Your task to perform on an android device: Go to network settings Image 0: 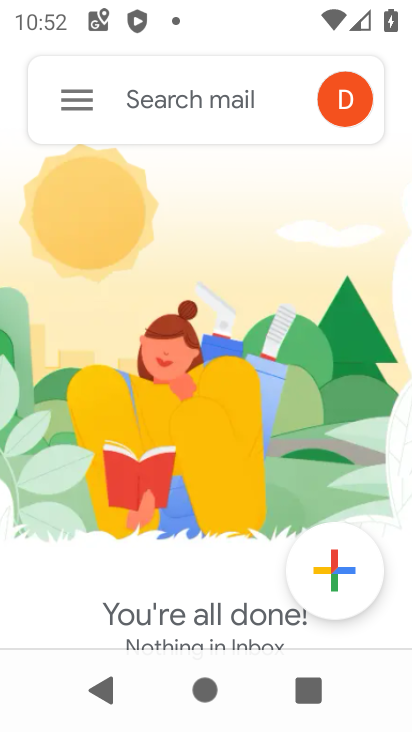
Step 0: press home button
Your task to perform on an android device: Go to network settings Image 1: 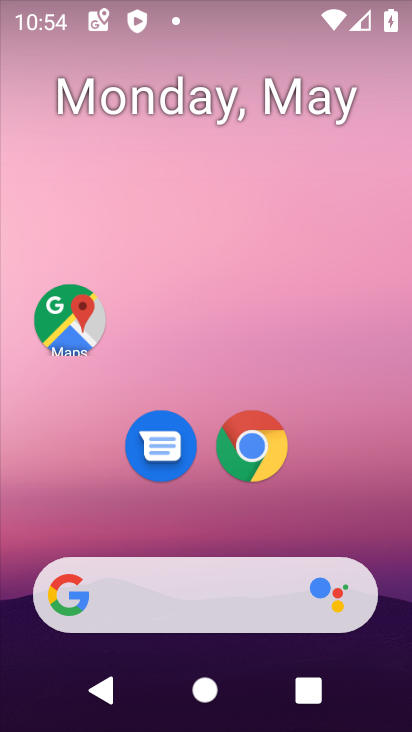
Step 1: drag from (225, 601) to (241, 64)
Your task to perform on an android device: Go to network settings Image 2: 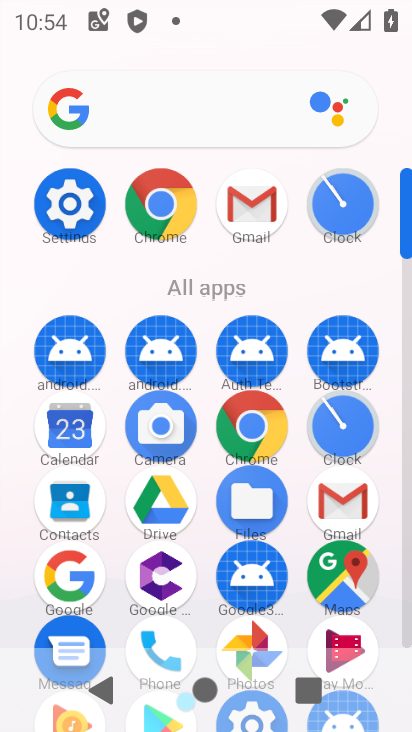
Step 2: click (54, 237)
Your task to perform on an android device: Go to network settings Image 3: 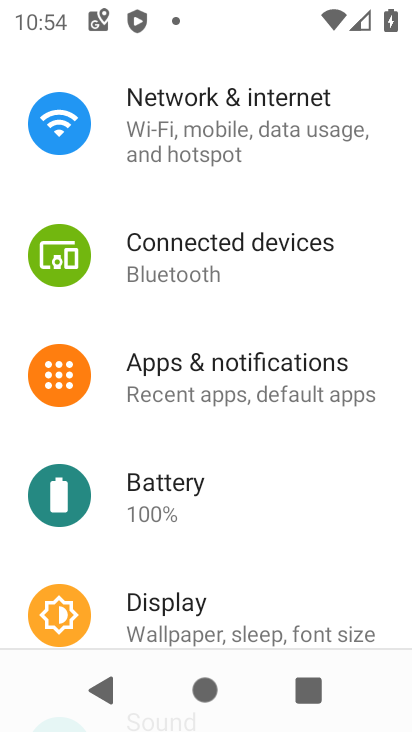
Step 3: drag from (191, 168) to (199, 655)
Your task to perform on an android device: Go to network settings Image 4: 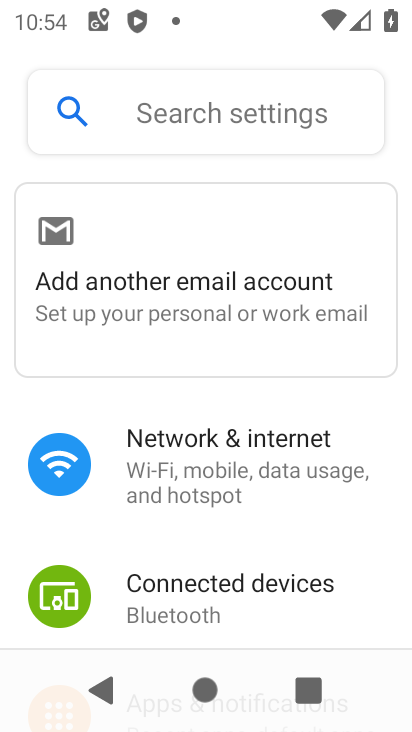
Step 4: click (211, 437)
Your task to perform on an android device: Go to network settings Image 5: 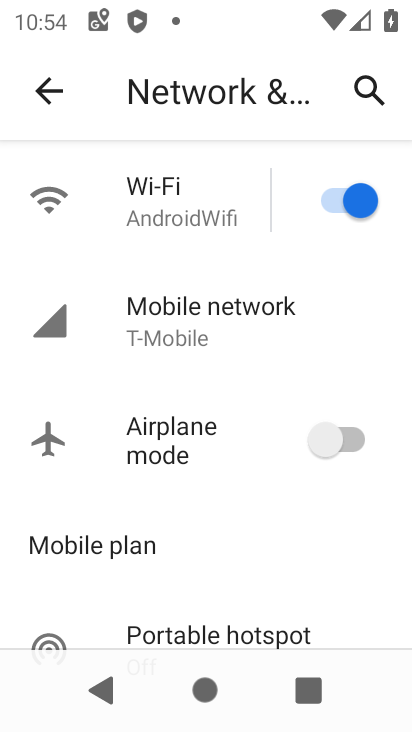
Step 5: task complete